Your task to perform on an android device: turn on location history Image 0: 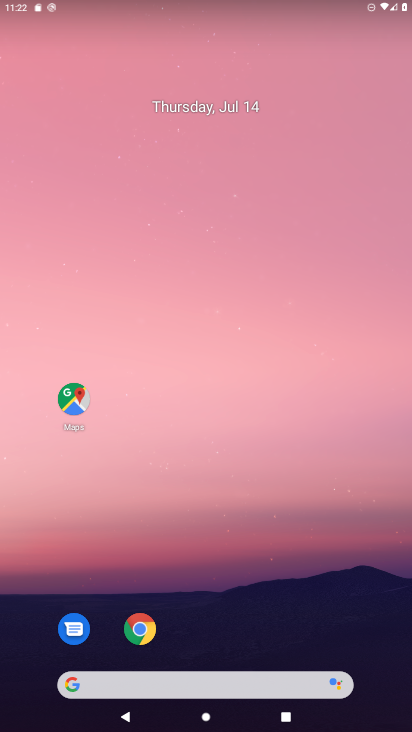
Step 0: drag from (333, 100) to (392, 39)
Your task to perform on an android device: turn on location history Image 1: 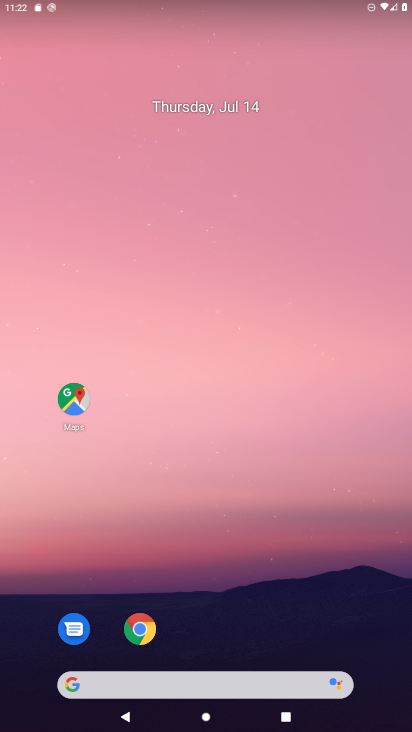
Step 1: drag from (215, 636) to (284, 51)
Your task to perform on an android device: turn on location history Image 2: 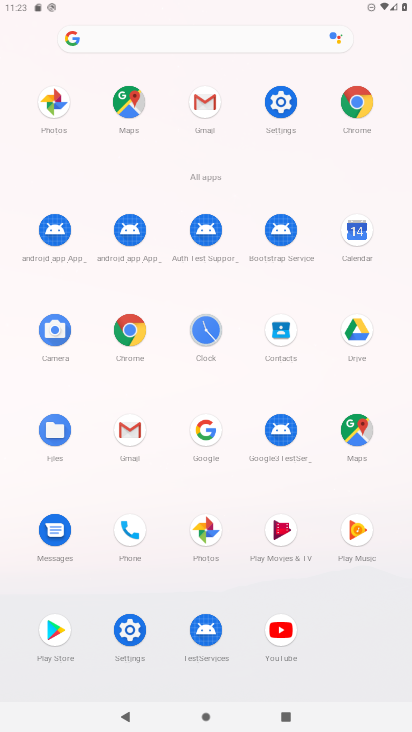
Step 2: click (273, 98)
Your task to perform on an android device: turn on location history Image 3: 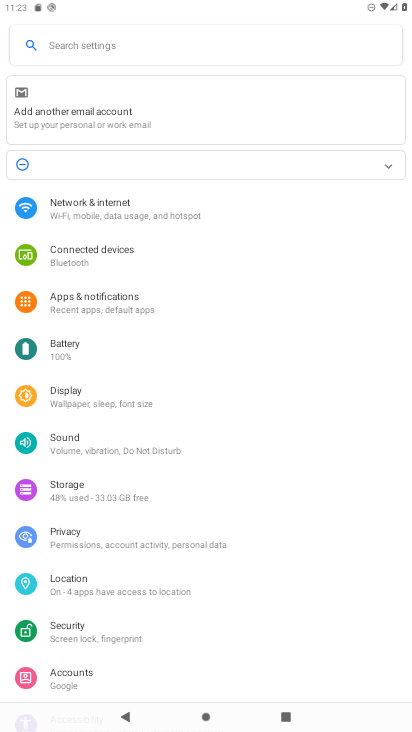
Step 3: click (142, 596)
Your task to perform on an android device: turn on location history Image 4: 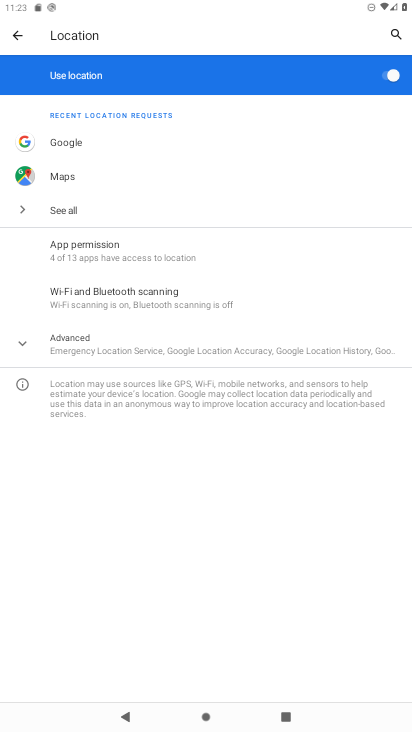
Step 4: click (171, 351)
Your task to perform on an android device: turn on location history Image 5: 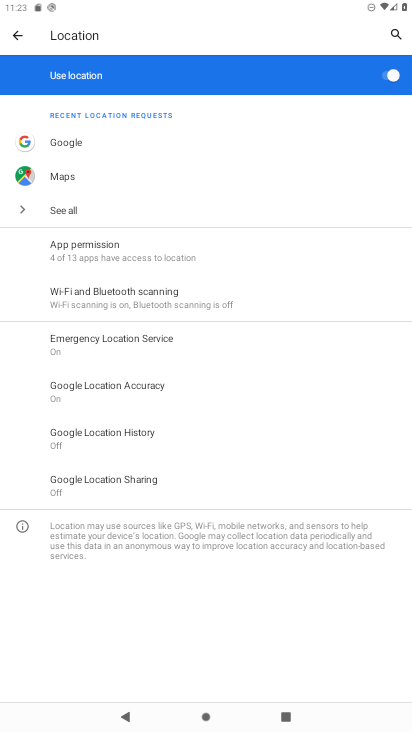
Step 5: click (167, 428)
Your task to perform on an android device: turn on location history Image 6: 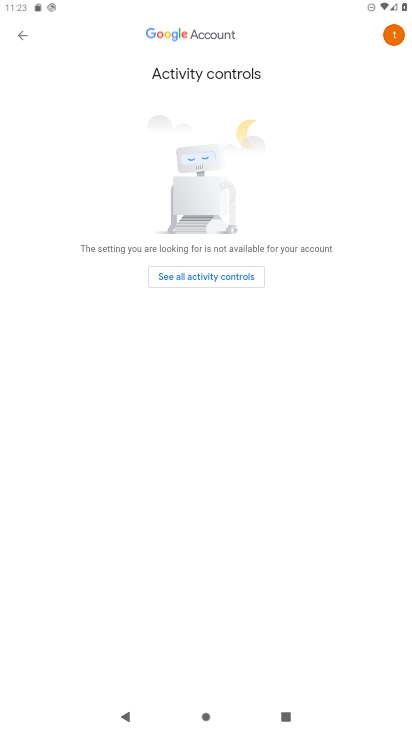
Step 6: task complete